Your task to perform on an android device: remove spam from my inbox in the gmail app Image 0: 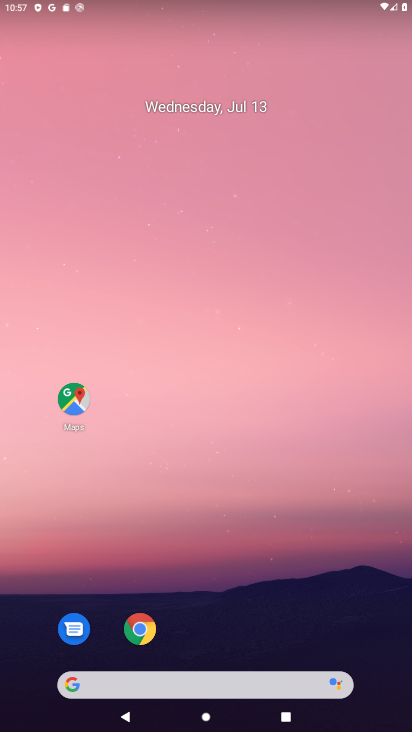
Step 0: drag from (229, 613) to (181, 168)
Your task to perform on an android device: remove spam from my inbox in the gmail app Image 1: 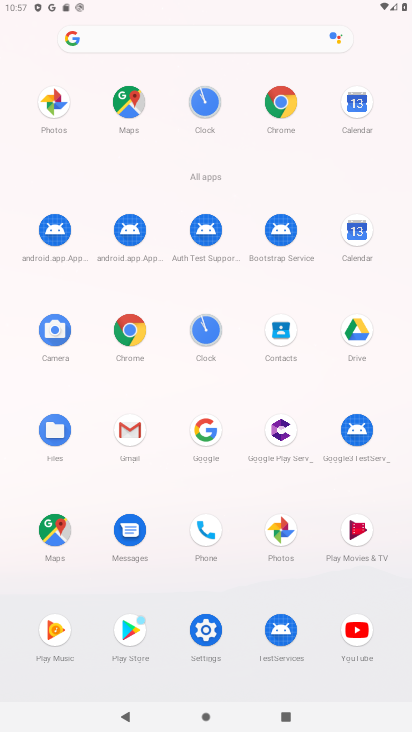
Step 1: click (133, 429)
Your task to perform on an android device: remove spam from my inbox in the gmail app Image 2: 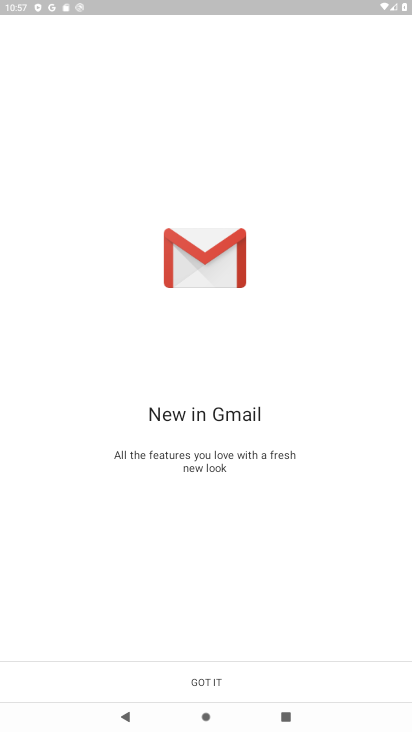
Step 2: click (212, 675)
Your task to perform on an android device: remove spam from my inbox in the gmail app Image 3: 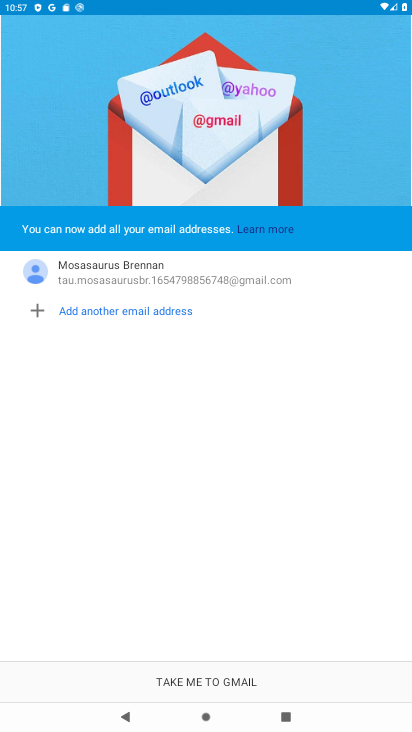
Step 3: click (212, 669)
Your task to perform on an android device: remove spam from my inbox in the gmail app Image 4: 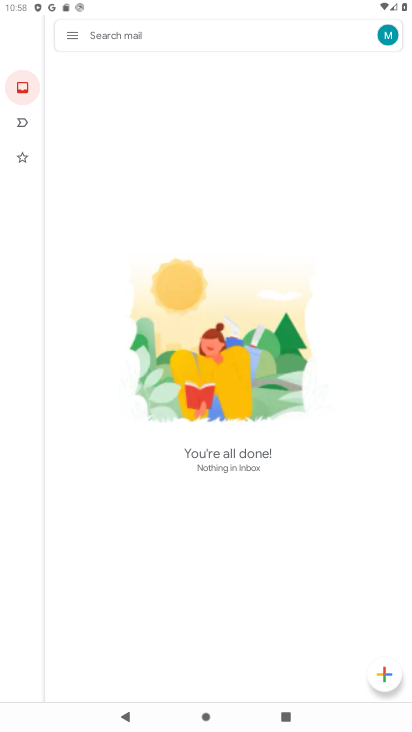
Step 4: click (75, 39)
Your task to perform on an android device: remove spam from my inbox in the gmail app Image 5: 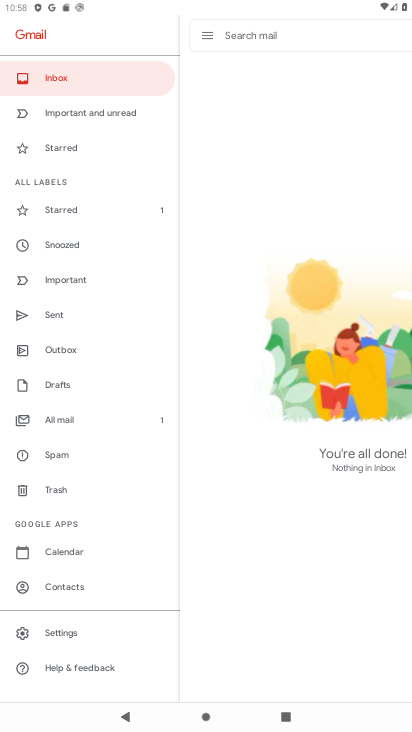
Step 5: click (74, 449)
Your task to perform on an android device: remove spam from my inbox in the gmail app Image 6: 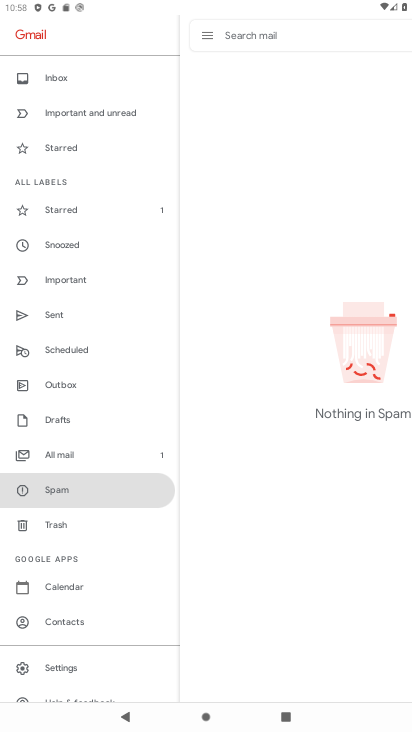
Step 6: task complete